Your task to perform on an android device: change the clock display to analog Image 0: 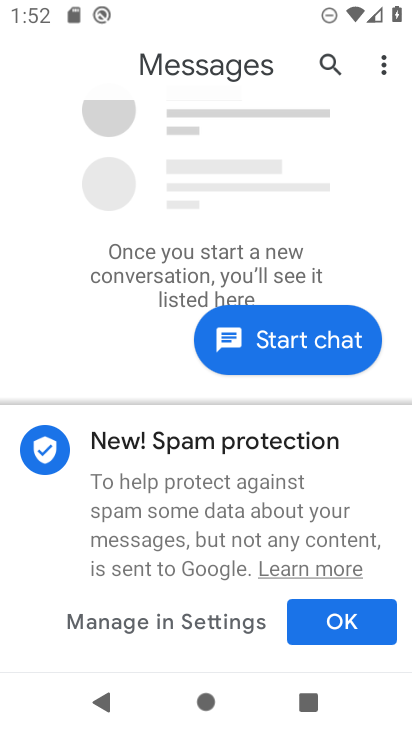
Step 0: press home button
Your task to perform on an android device: change the clock display to analog Image 1: 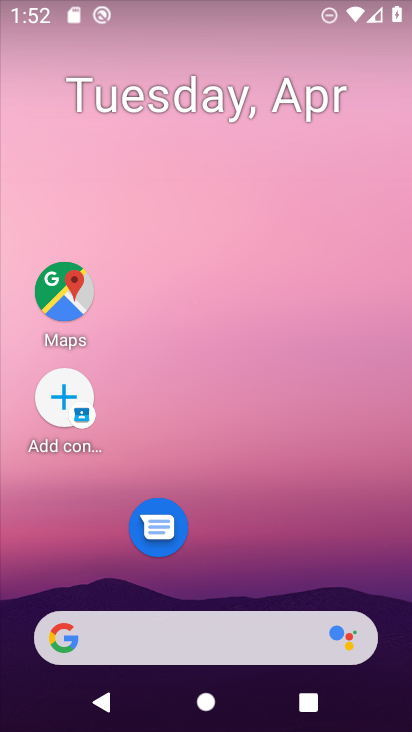
Step 1: drag from (203, 579) to (231, 106)
Your task to perform on an android device: change the clock display to analog Image 2: 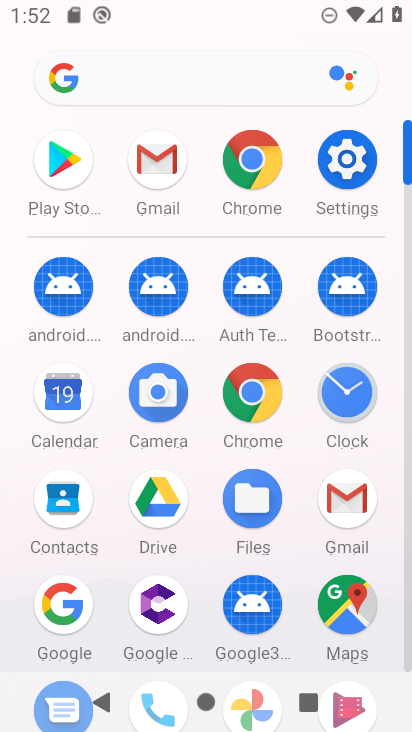
Step 2: click (348, 391)
Your task to perform on an android device: change the clock display to analog Image 3: 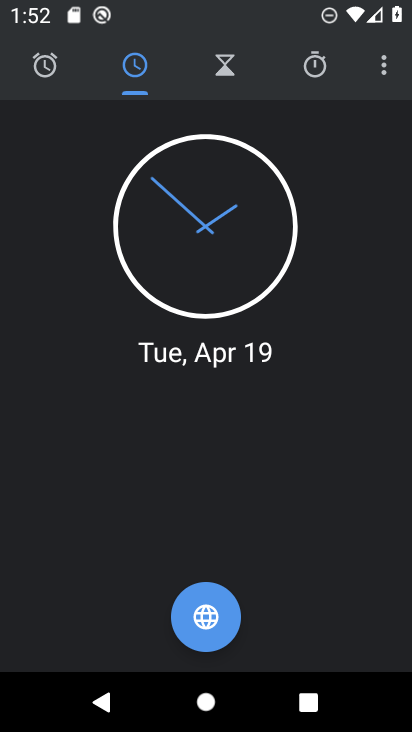
Step 3: click (386, 63)
Your task to perform on an android device: change the clock display to analog Image 4: 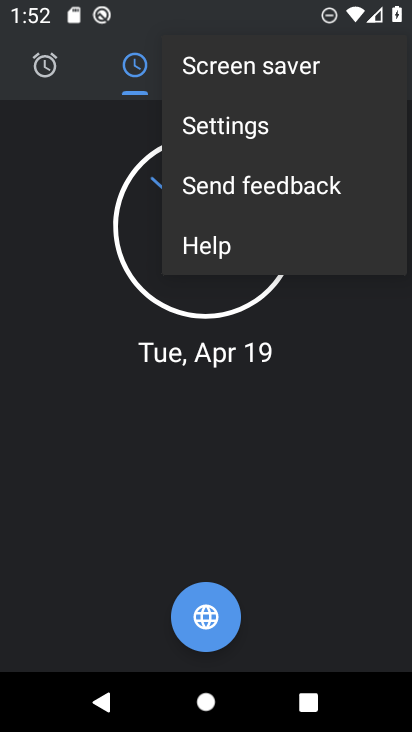
Step 4: click (255, 125)
Your task to perform on an android device: change the clock display to analog Image 5: 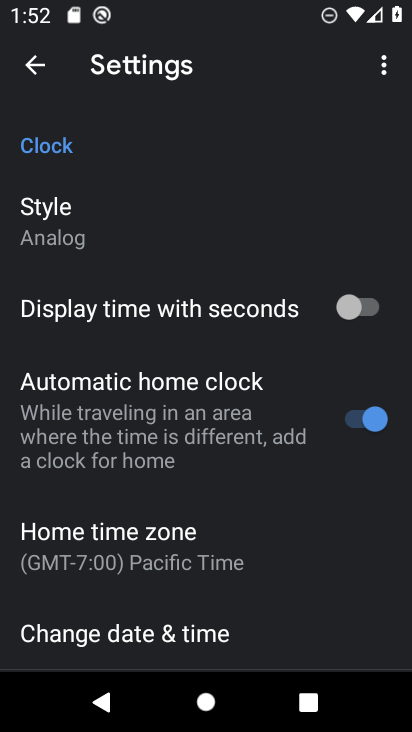
Step 5: click (76, 229)
Your task to perform on an android device: change the clock display to analog Image 6: 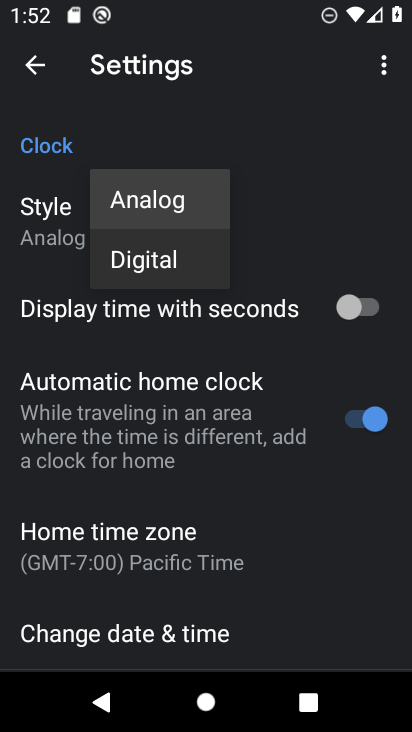
Step 6: click (163, 195)
Your task to perform on an android device: change the clock display to analog Image 7: 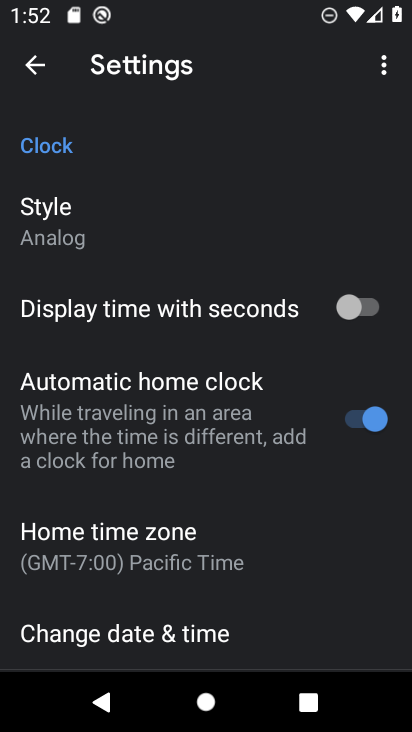
Step 7: task complete